Your task to perform on an android device: Open Google Chrome and open the bookmarks view Image 0: 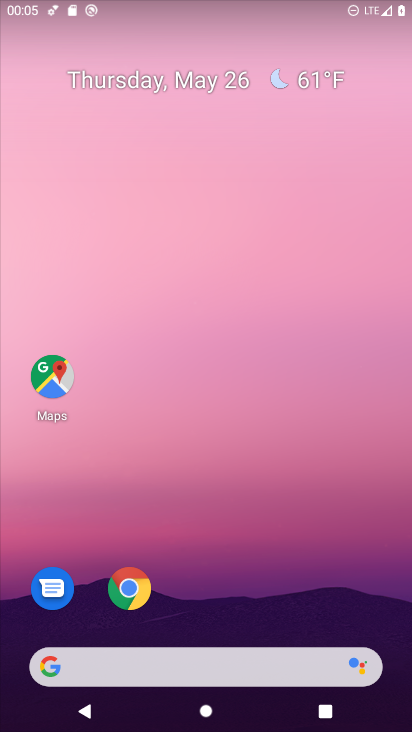
Step 0: click (133, 594)
Your task to perform on an android device: Open Google Chrome and open the bookmarks view Image 1: 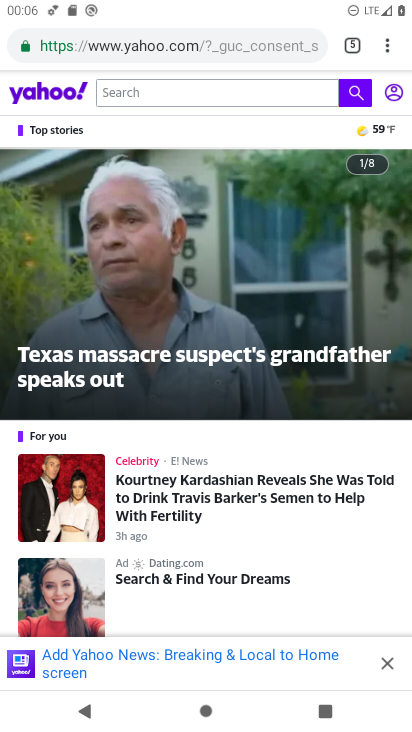
Step 1: click (387, 45)
Your task to perform on an android device: Open Google Chrome and open the bookmarks view Image 2: 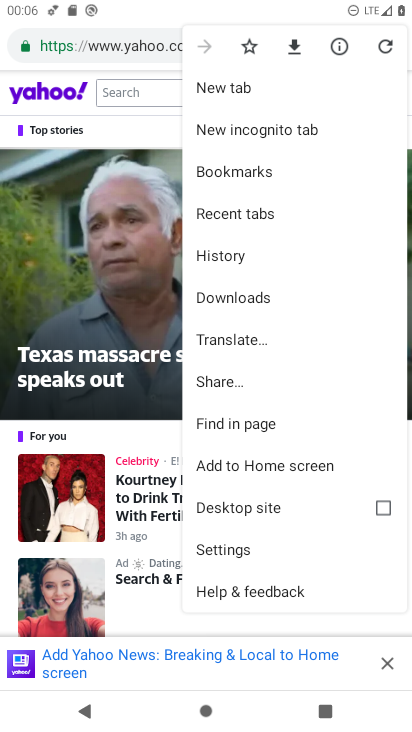
Step 2: click (249, 174)
Your task to perform on an android device: Open Google Chrome and open the bookmarks view Image 3: 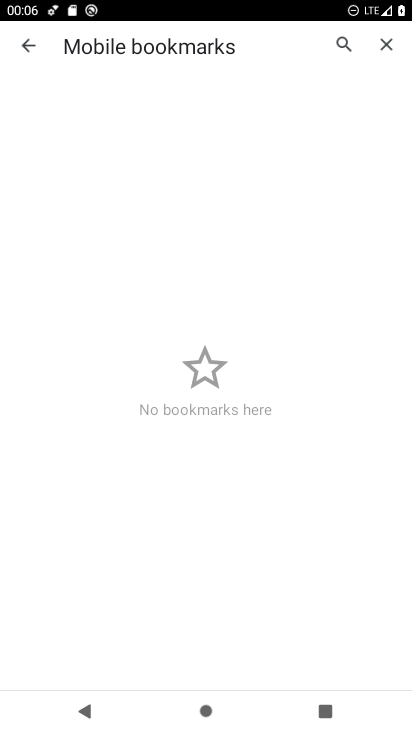
Step 3: task complete